Your task to perform on an android device: Open Wikipedia Image 0: 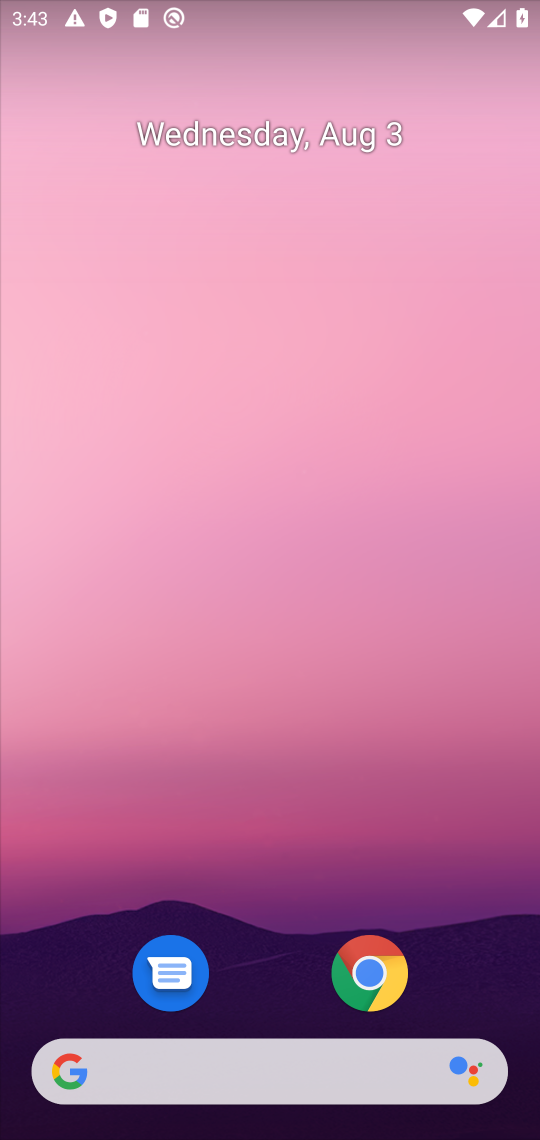
Step 0: click (388, 955)
Your task to perform on an android device: Open Wikipedia Image 1: 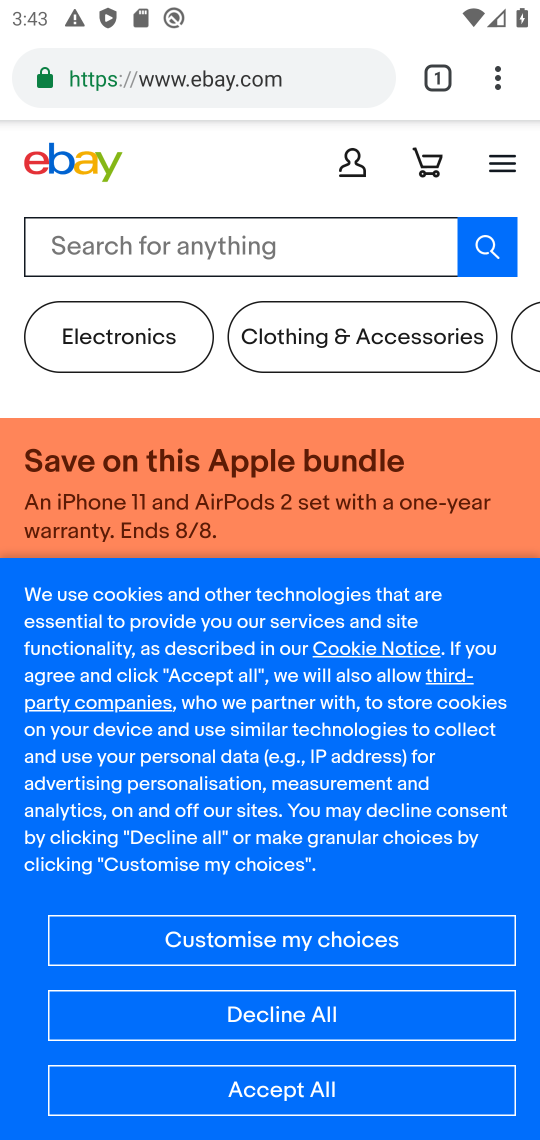
Step 1: click (498, 68)
Your task to perform on an android device: Open Wikipedia Image 2: 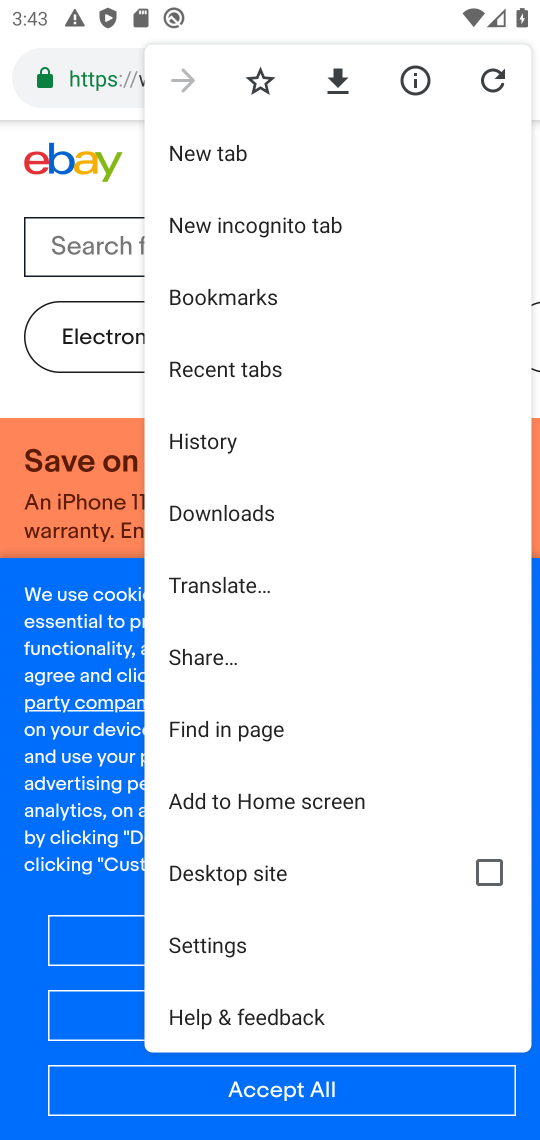
Step 2: click (384, 138)
Your task to perform on an android device: Open Wikipedia Image 3: 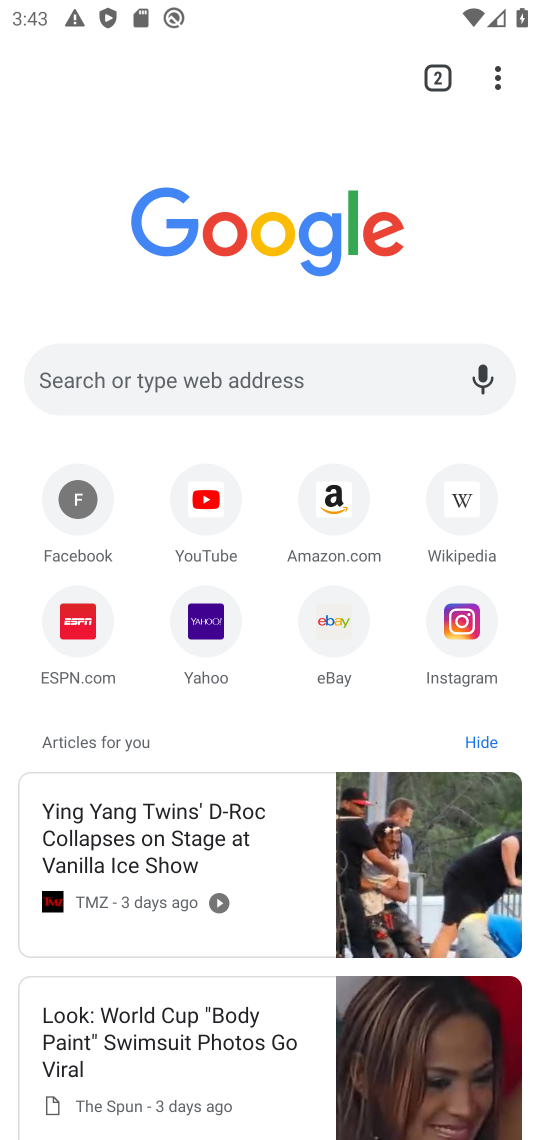
Step 3: click (455, 501)
Your task to perform on an android device: Open Wikipedia Image 4: 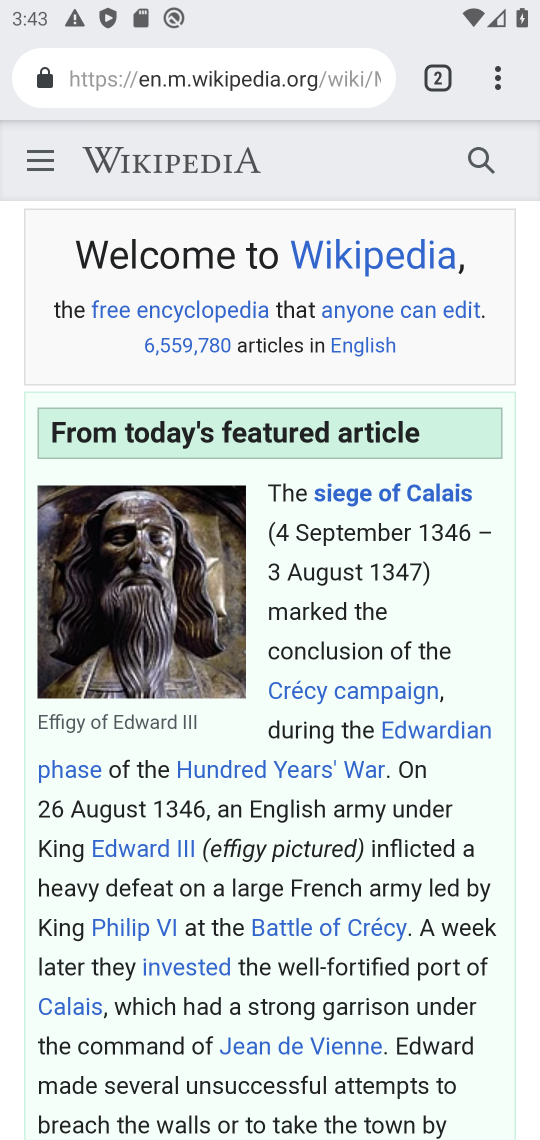
Step 4: task complete